Your task to perform on an android device: stop showing notifications on the lock screen Image 0: 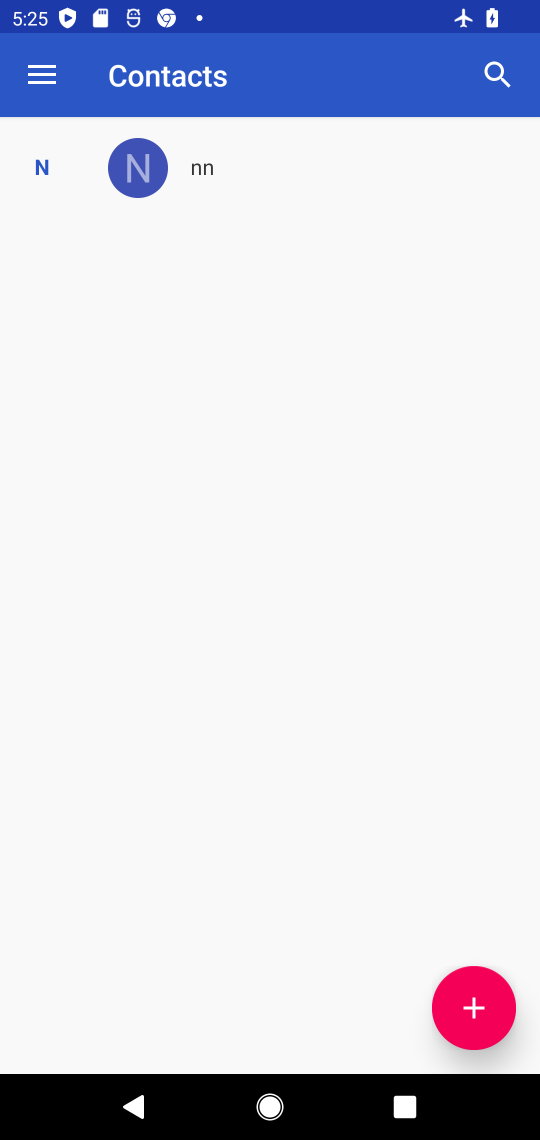
Step 0: press home button
Your task to perform on an android device: stop showing notifications on the lock screen Image 1: 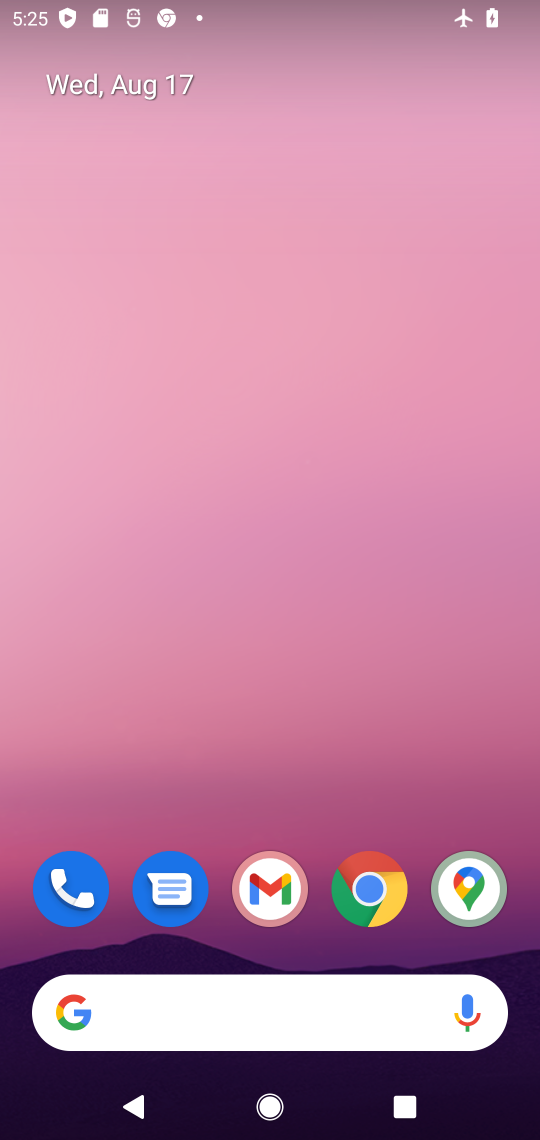
Step 1: drag from (309, 818) to (256, 115)
Your task to perform on an android device: stop showing notifications on the lock screen Image 2: 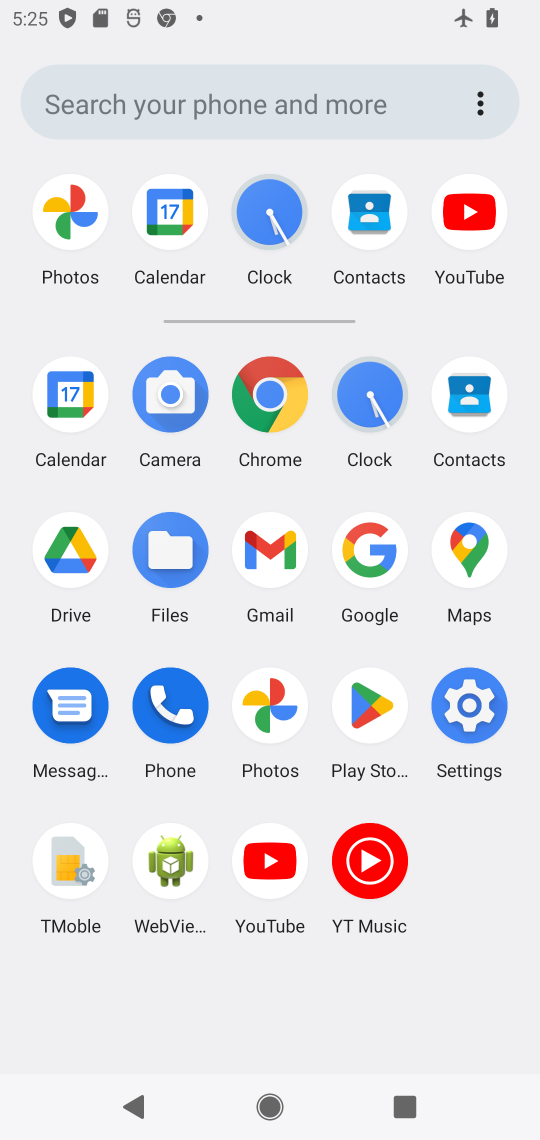
Step 2: click (476, 708)
Your task to perform on an android device: stop showing notifications on the lock screen Image 3: 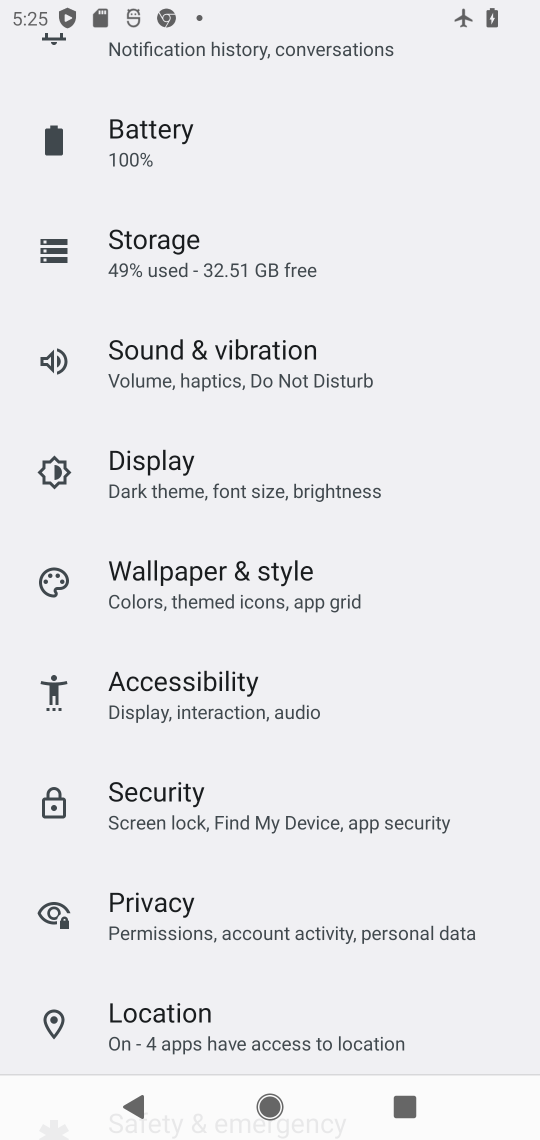
Step 3: drag from (279, 177) to (377, 904)
Your task to perform on an android device: stop showing notifications on the lock screen Image 4: 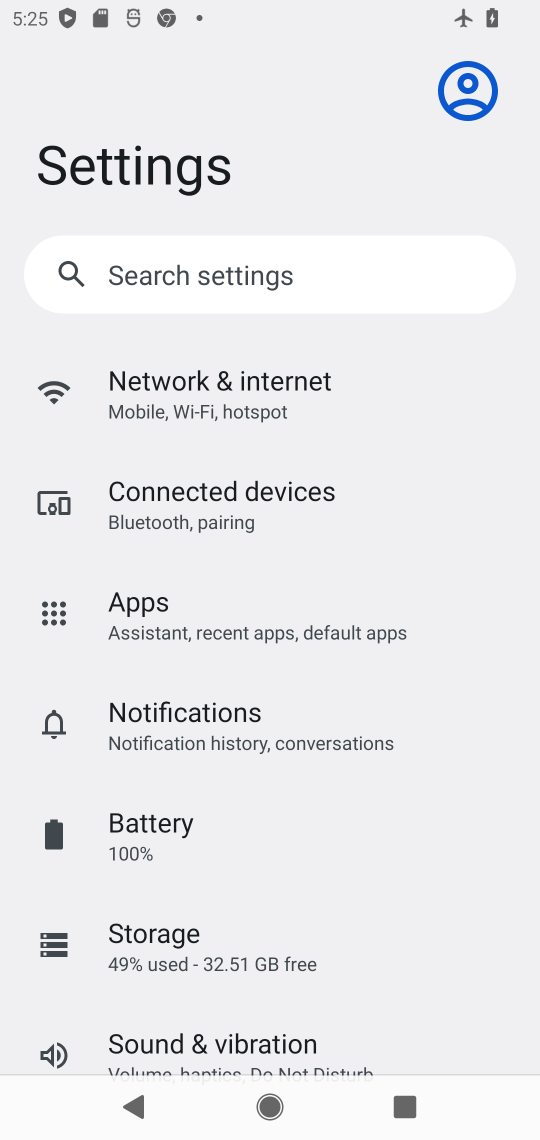
Step 4: click (185, 698)
Your task to perform on an android device: stop showing notifications on the lock screen Image 5: 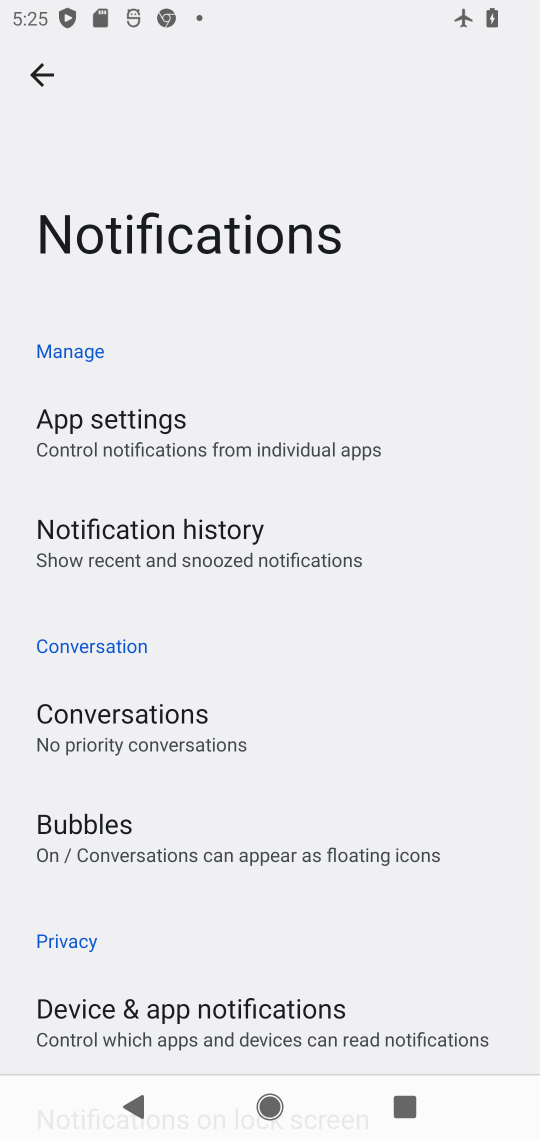
Step 5: drag from (337, 937) to (312, 579)
Your task to perform on an android device: stop showing notifications on the lock screen Image 6: 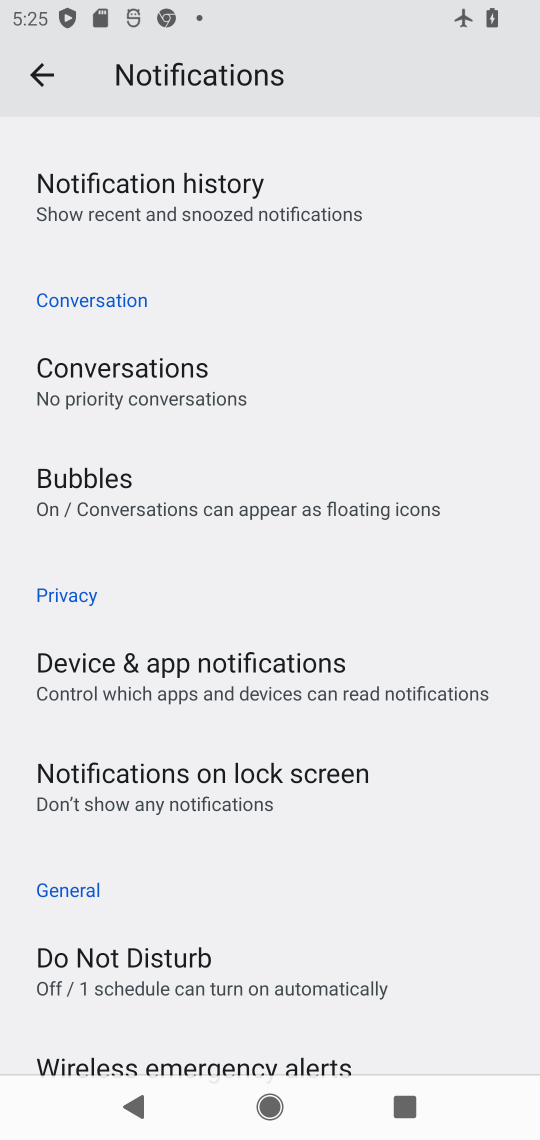
Step 6: click (224, 782)
Your task to perform on an android device: stop showing notifications on the lock screen Image 7: 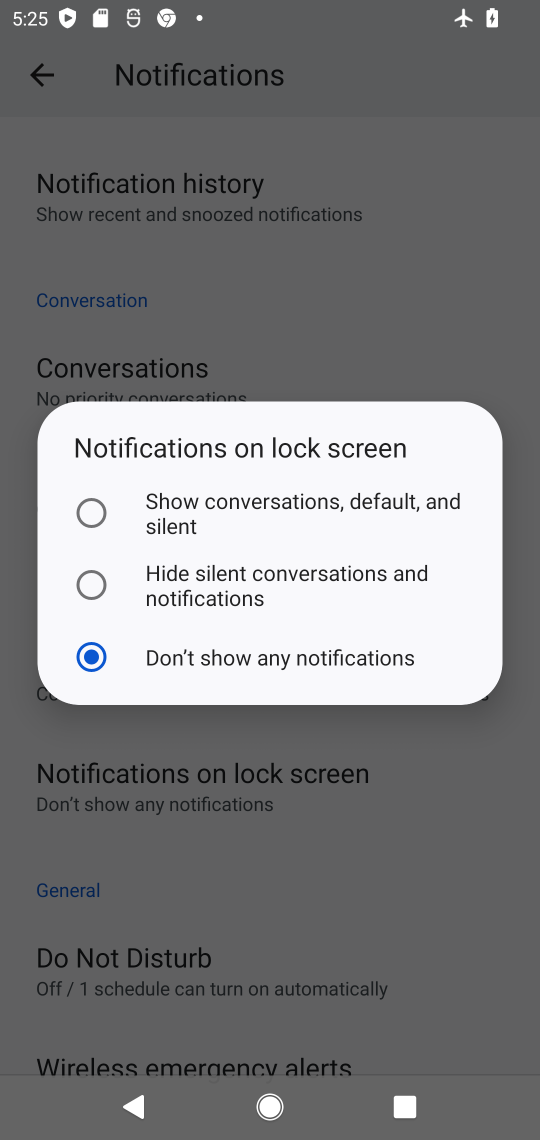
Step 7: task complete